Your task to perform on an android device: change notification settings in the gmail app Image 0: 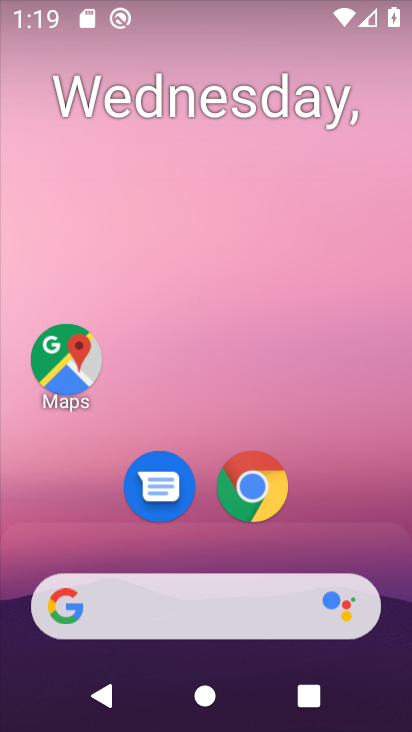
Step 0: drag from (255, 719) to (294, 169)
Your task to perform on an android device: change notification settings in the gmail app Image 1: 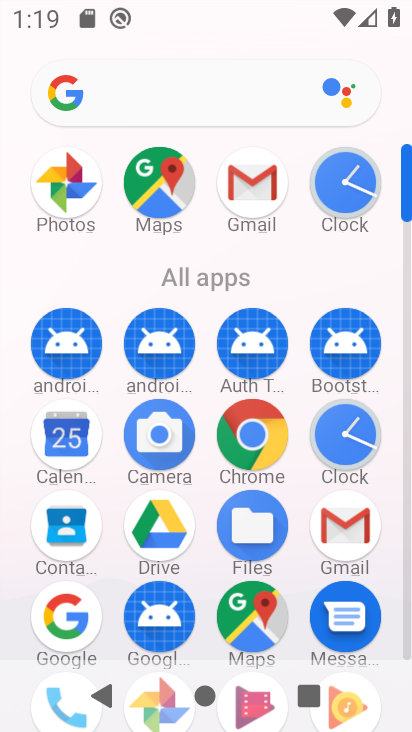
Step 1: drag from (259, 583) to (253, 0)
Your task to perform on an android device: change notification settings in the gmail app Image 2: 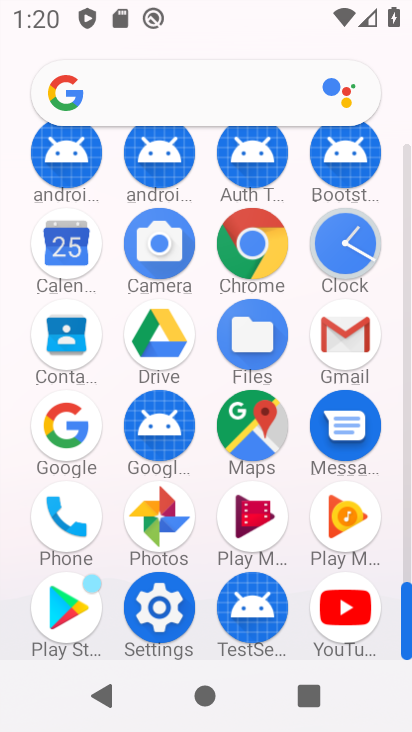
Step 2: click (337, 343)
Your task to perform on an android device: change notification settings in the gmail app Image 3: 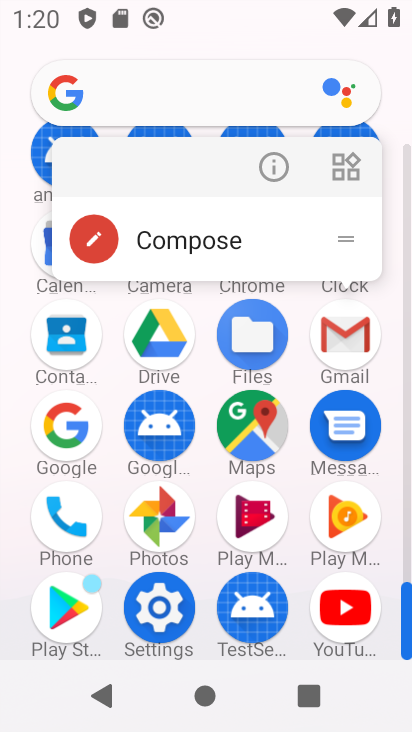
Step 3: click (275, 169)
Your task to perform on an android device: change notification settings in the gmail app Image 4: 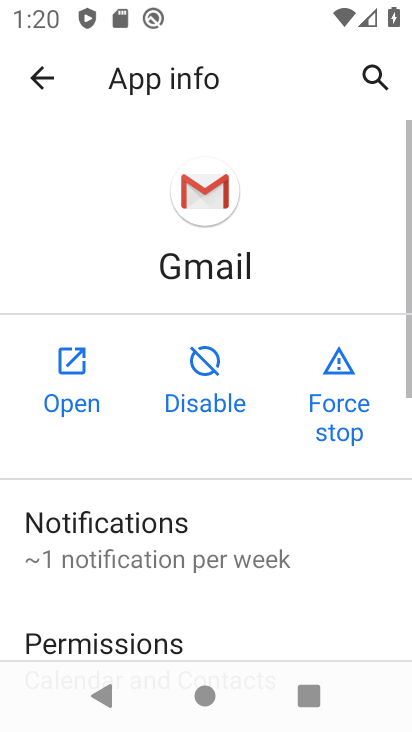
Step 4: click (195, 539)
Your task to perform on an android device: change notification settings in the gmail app Image 5: 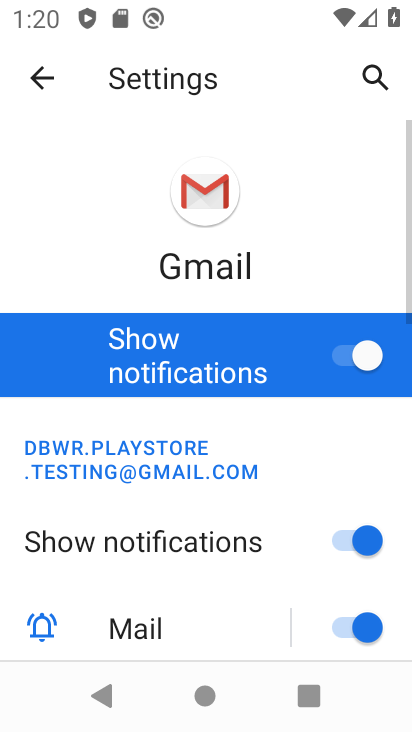
Step 5: click (366, 361)
Your task to perform on an android device: change notification settings in the gmail app Image 6: 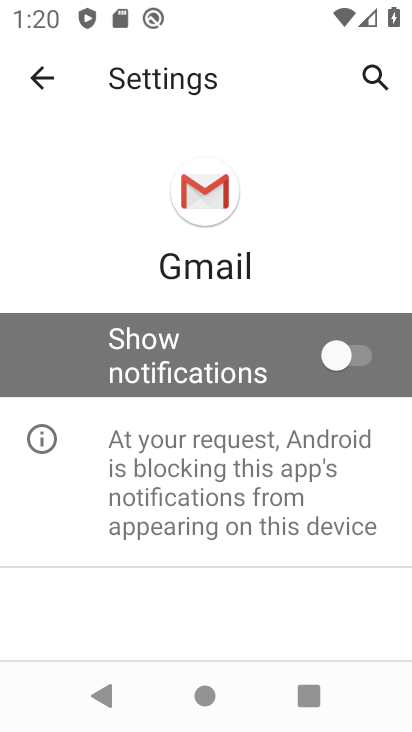
Step 6: task complete